Your task to perform on an android device: change the clock display to show seconds Image 0: 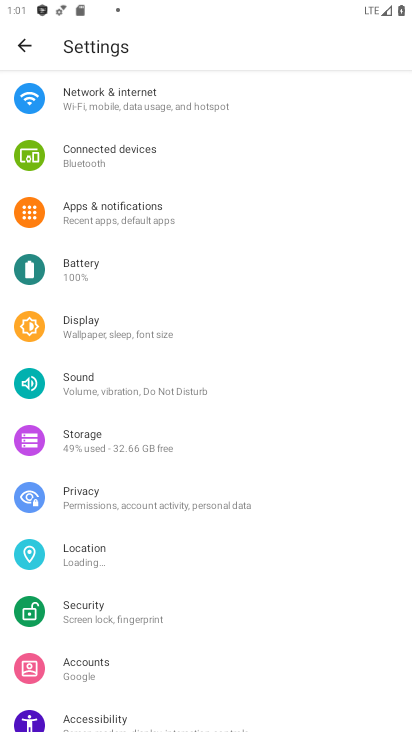
Step 0: press home button
Your task to perform on an android device: change the clock display to show seconds Image 1: 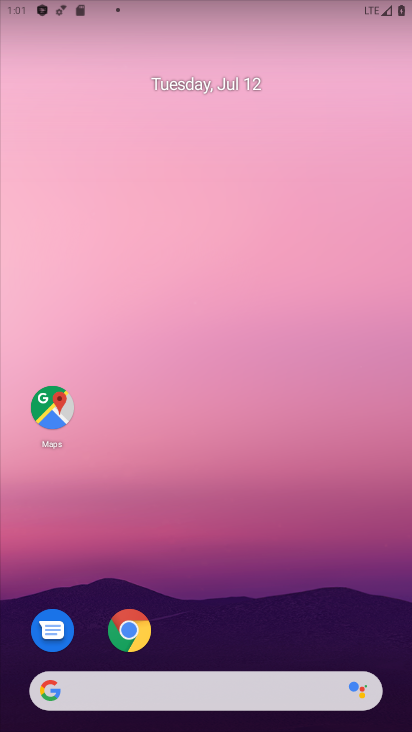
Step 1: drag from (216, 482) to (213, 89)
Your task to perform on an android device: change the clock display to show seconds Image 2: 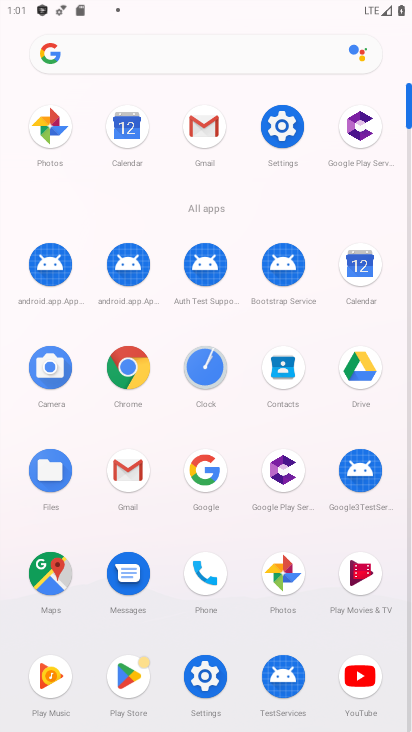
Step 2: click (203, 365)
Your task to perform on an android device: change the clock display to show seconds Image 3: 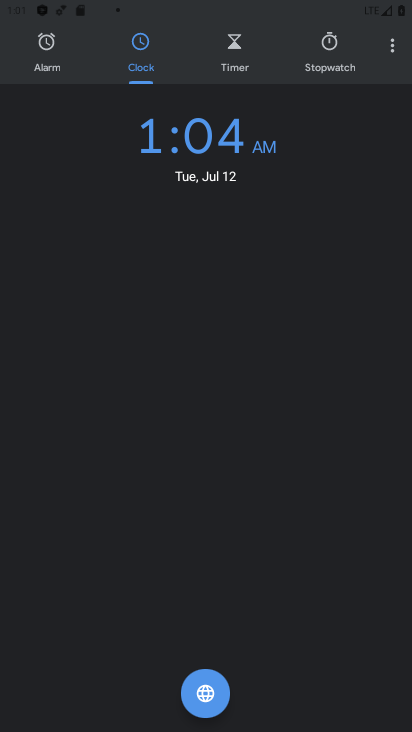
Step 3: click (390, 49)
Your task to perform on an android device: change the clock display to show seconds Image 4: 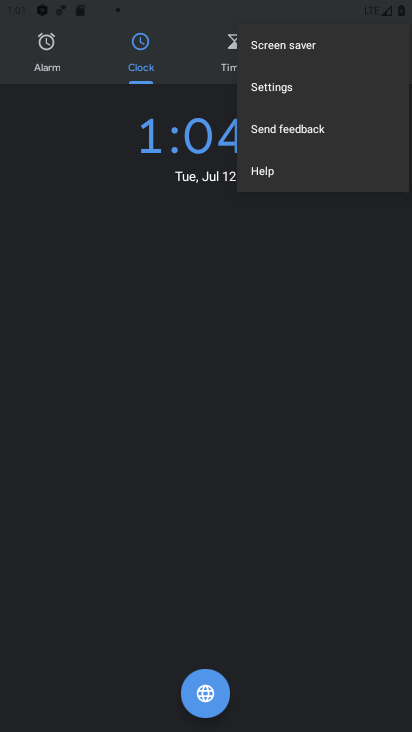
Step 4: click (286, 83)
Your task to perform on an android device: change the clock display to show seconds Image 5: 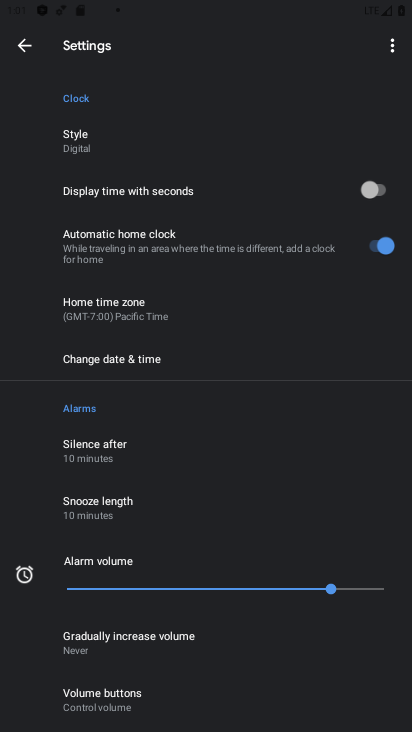
Step 5: click (373, 191)
Your task to perform on an android device: change the clock display to show seconds Image 6: 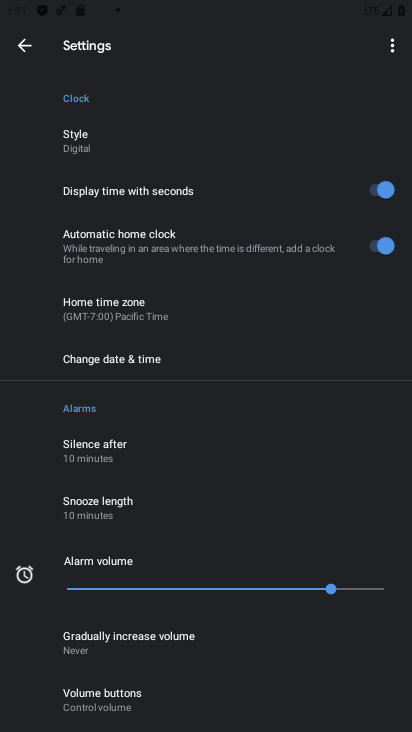
Step 6: task complete